Your task to perform on an android device: Go to privacy settings Image 0: 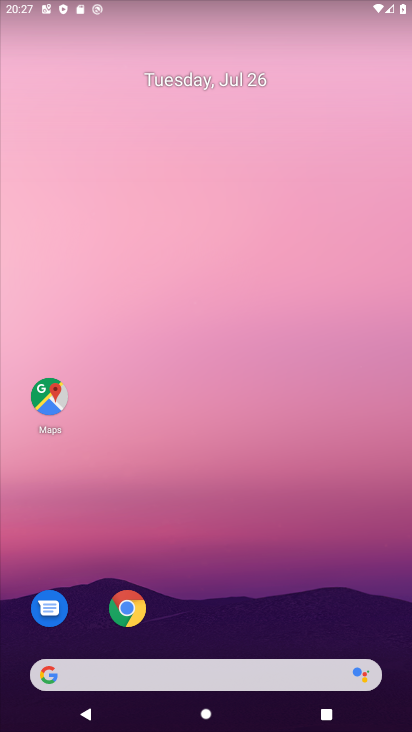
Step 0: drag from (42, 594) to (300, 35)
Your task to perform on an android device: Go to privacy settings Image 1: 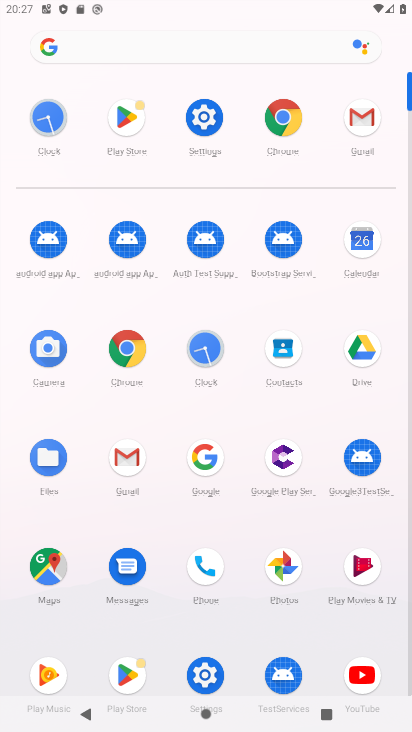
Step 1: click (203, 680)
Your task to perform on an android device: Go to privacy settings Image 2: 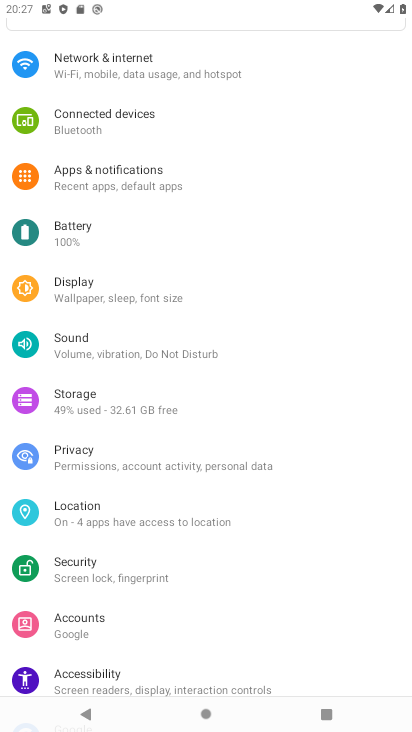
Step 2: click (88, 459)
Your task to perform on an android device: Go to privacy settings Image 3: 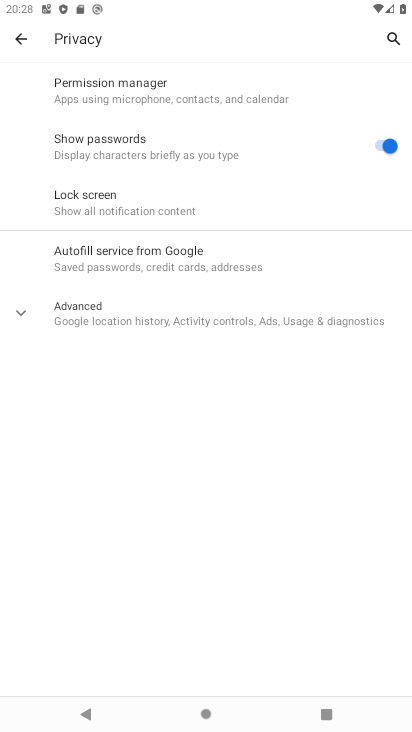
Step 3: task complete